Your task to perform on an android device: Open Google Chrome and click the shortcut for Amazon.com Image 0: 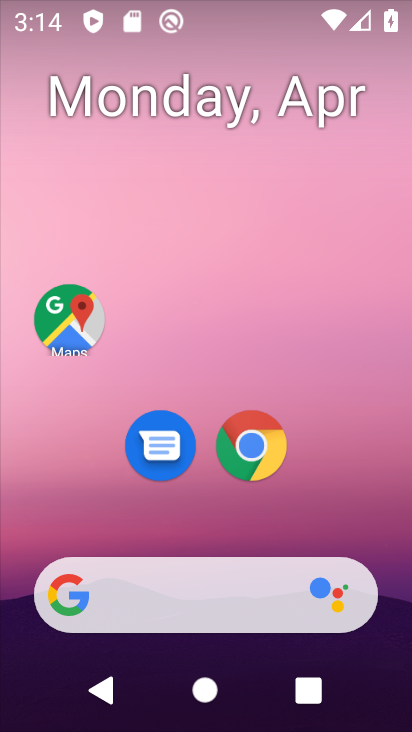
Step 0: click (264, 441)
Your task to perform on an android device: Open Google Chrome and click the shortcut for Amazon.com Image 1: 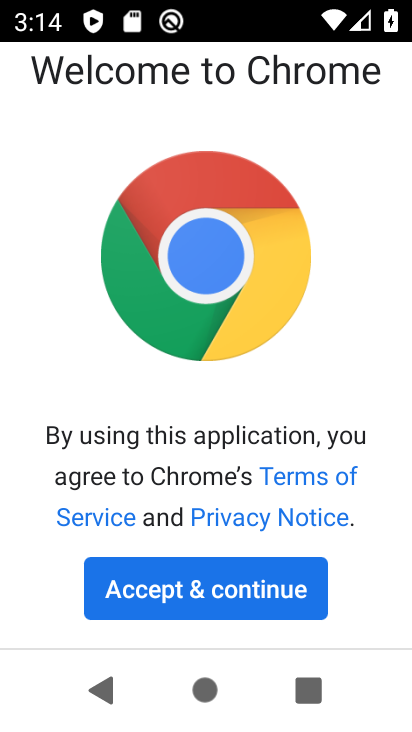
Step 1: click (202, 611)
Your task to perform on an android device: Open Google Chrome and click the shortcut for Amazon.com Image 2: 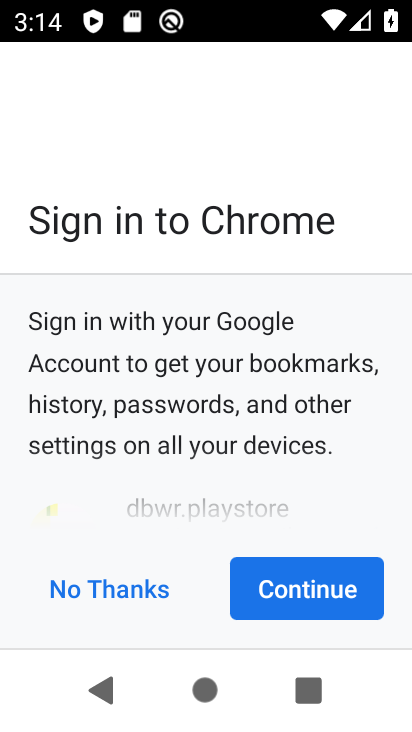
Step 2: click (146, 587)
Your task to perform on an android device: Open Google Chrome and click the shortcut for Amazon.com Image 3: 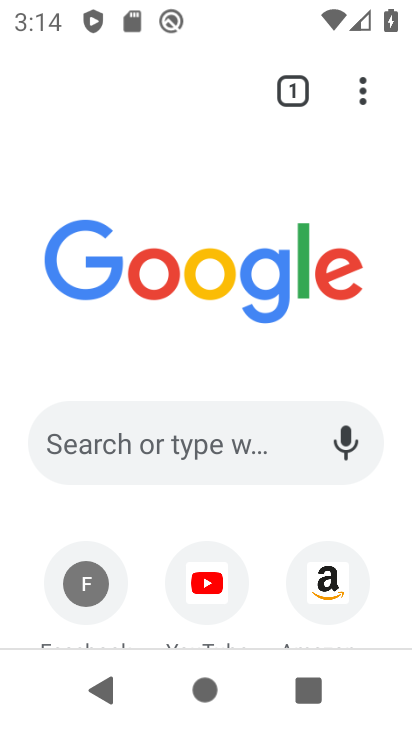
Step 3: click (365, 577)
Your task to perform on an android device: Open Google Chrome and click the shortcut for Amazon.com Image 4: 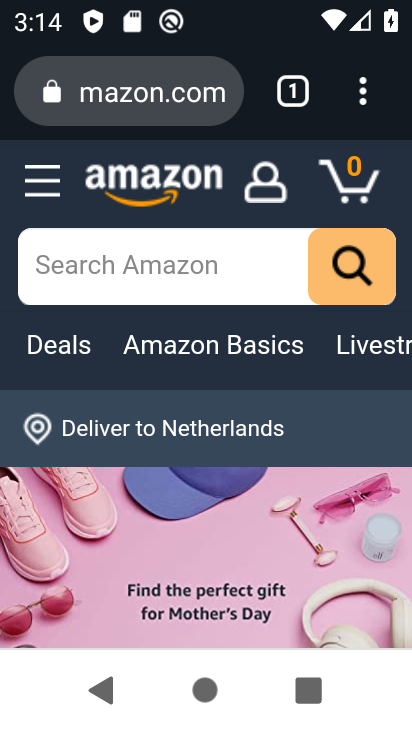
Step 4: task complete